Your task to perform on an android device: check the backup settings in the google photos Image 0: 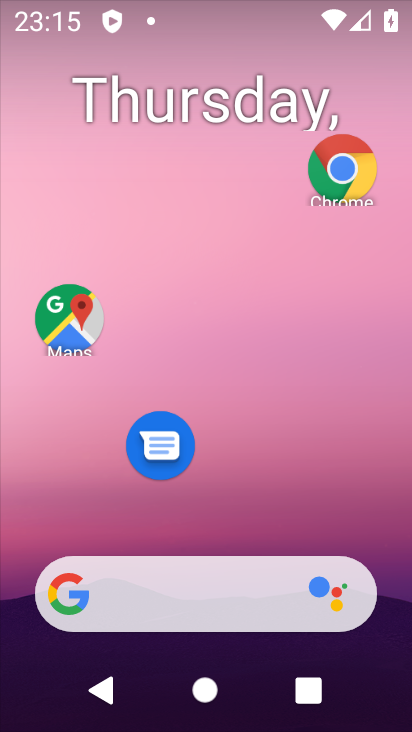
Step 0: drag from (184, 635) to (270, 52)
Your task to perform on an android device: check the backup settings in the google photos Image 1: 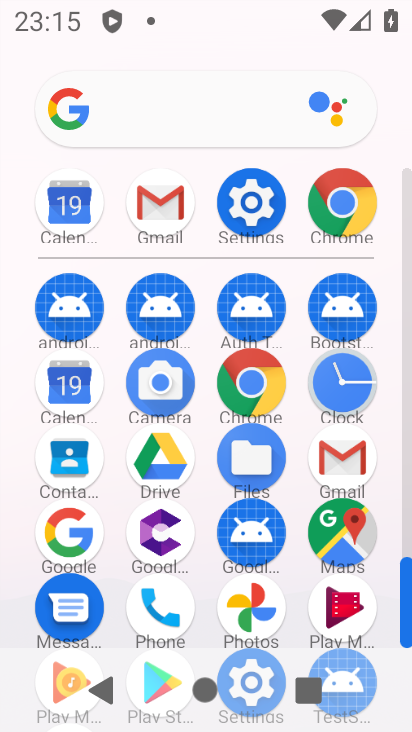
Step 1: click (241, 605)
Your task to perform on an android device: check the backup settings in the google photos Image 2: 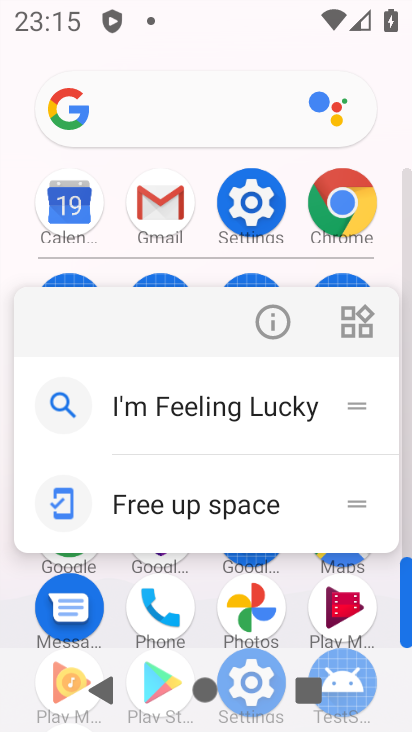
Step 2: click (266, 328)
Your task to perform on an android device: check the backup settings in the google photos Image 3: 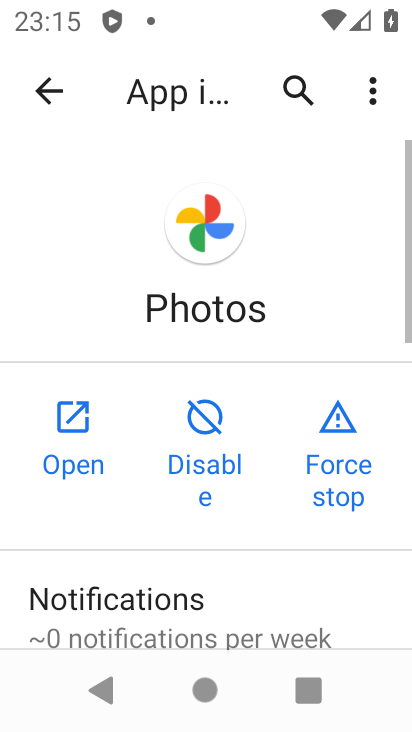
Step 3: click (90, 427)
Your task to perform on an android device: check the backup settings in the google photos Image 4: 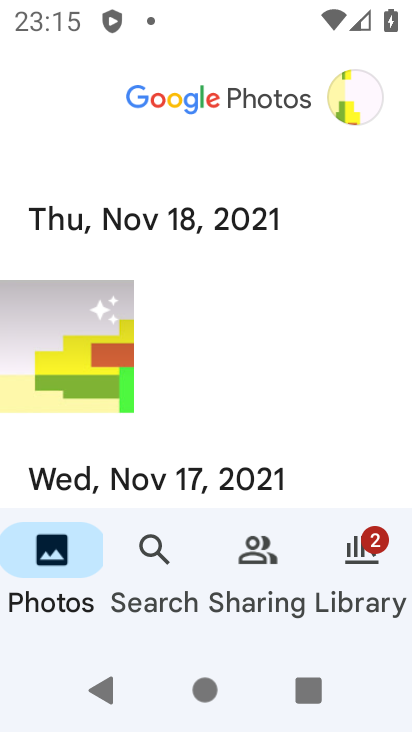
Step 4: drag from (212, 525) to (333, 132)
Your task to perform on an android device: check the backup settings in the google photos Image 5: 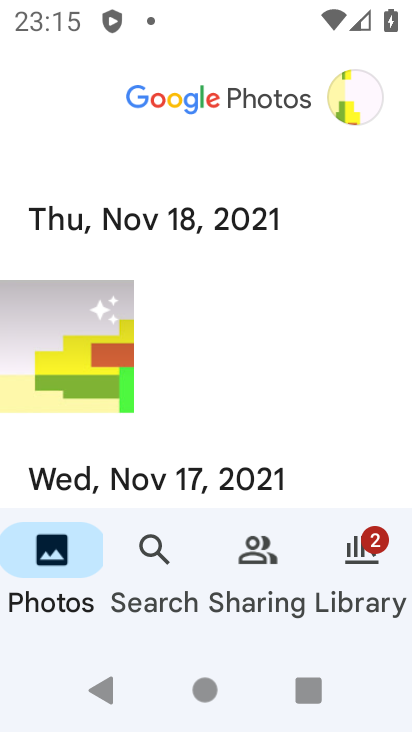
Step 5: drag from (229, 396) to (271, 13)
Your task to perform on an android device: check the backup settings in the google photos Image 6: 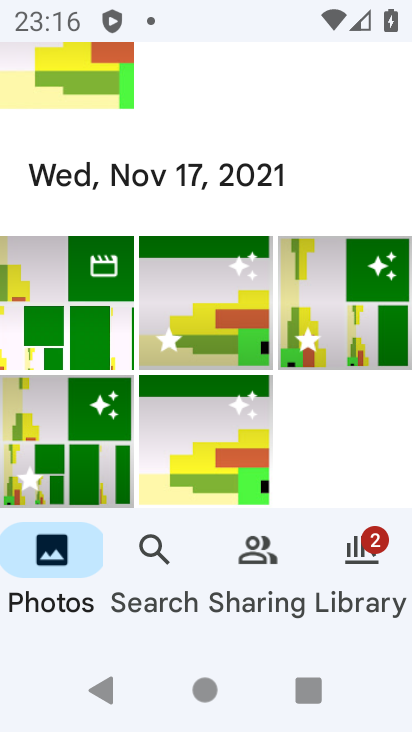
Step 6: drag from (216, 457) to (324, 200)
Your task to perform on an android device: check the backup settings in the google photos Image 7: 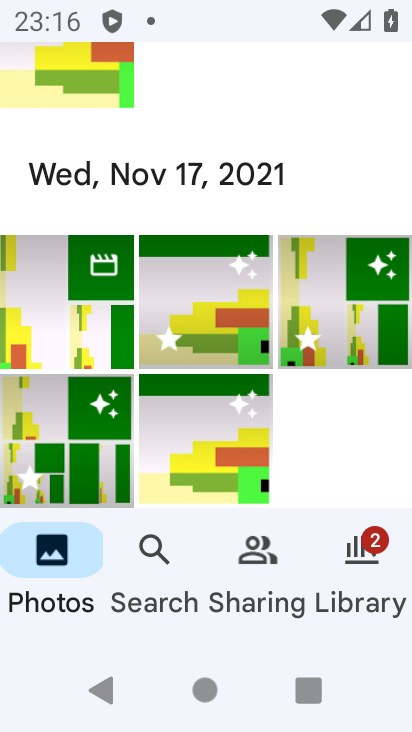
Step 7: click (358, 582)
Your task to perform on an android device: check the backup settings in the google photos Image 8: 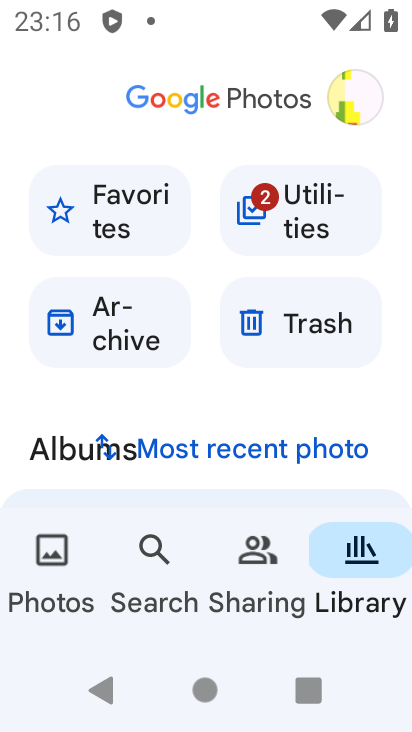
Step 8: drag from (311, 176) to (284, 725)
Your task to perform on an android device: check the backup settings in the google photos Image 9: 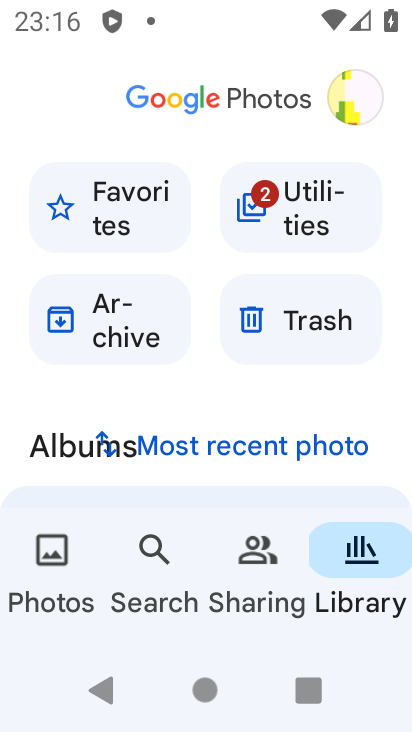
Step 9: click (351, 76)
Your task to perform on an android device: check the backup settings in the google photos Image 10: 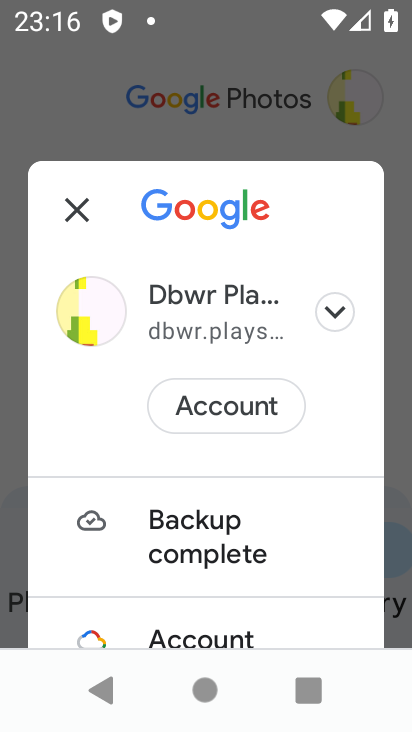
Step 10: drag from (250, 500) to (323, 134)
Your task to perform on an android device: check the backup settings in the google photos Image 11: 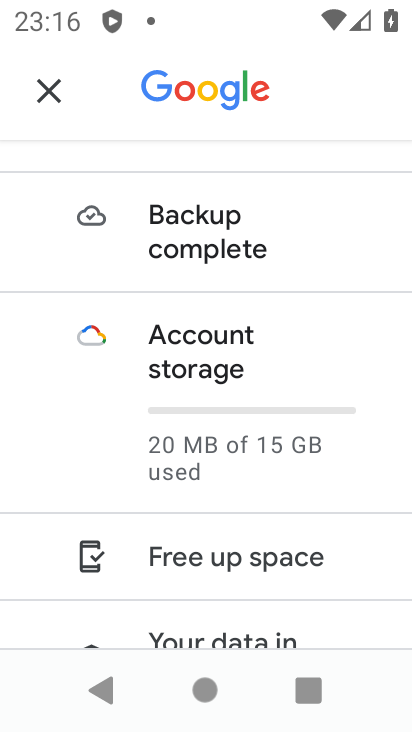
Step 11: drag from (174, 554) to (188, 260)
Your task to perform on an android device: check the backup settings in the google photos Image 12: 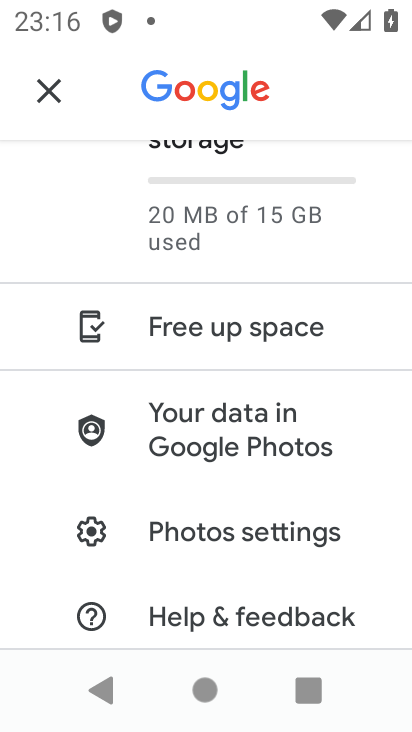
Step 12: click (147, 527)
Your task to perform on an android device: check the backup settings in the google photos Image 13: 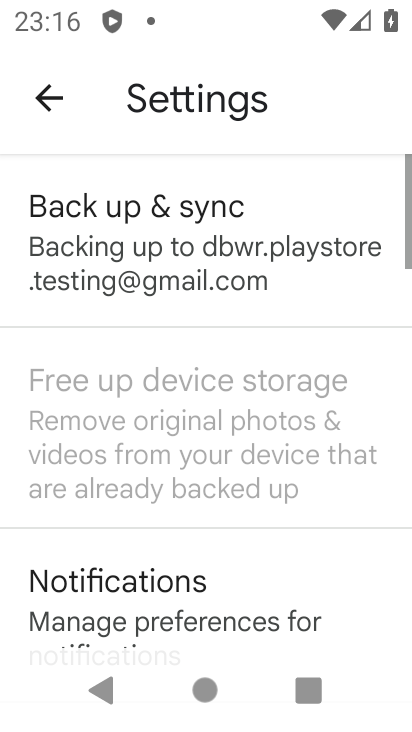
Step 13: drag from (214, 582) to (272, 109)
Your task to perform on an android device: check the backup settings in the google photos Image 14: 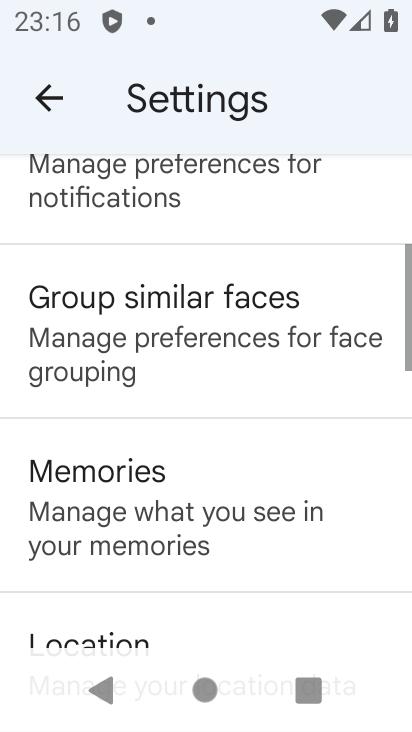
Step 14: drag from (194, 232) to (188, 721)
Your task to perform on an android device: check the backup settings in the google photos Image 15: 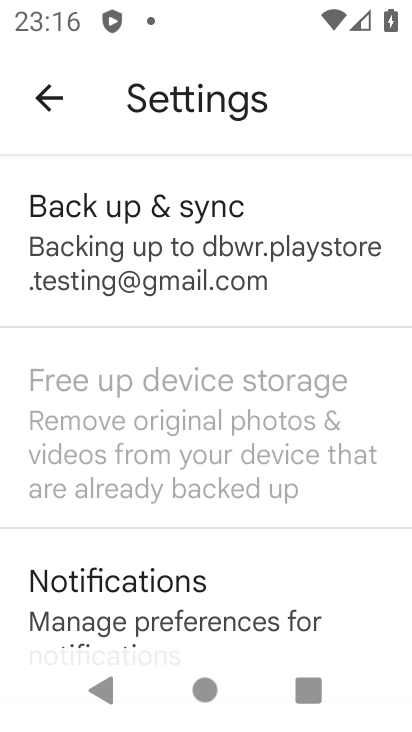
Step 15: click (189, 279)
Your task to perform on an android device: check the backup settings in the google photos Image 16: 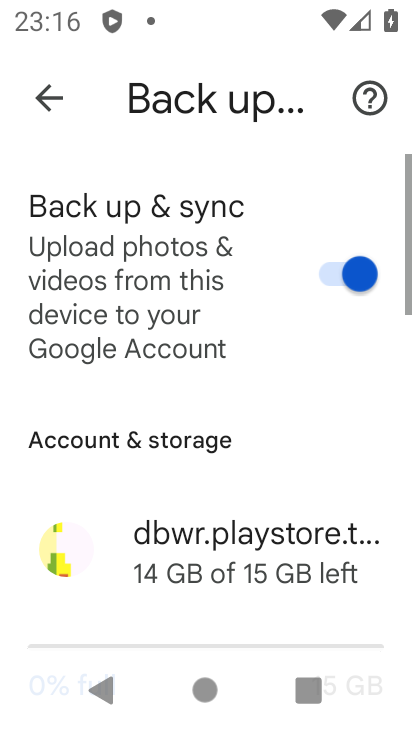
Step 16: task complete